Your task to perform on an android device: toggle sleep mode Image 0: 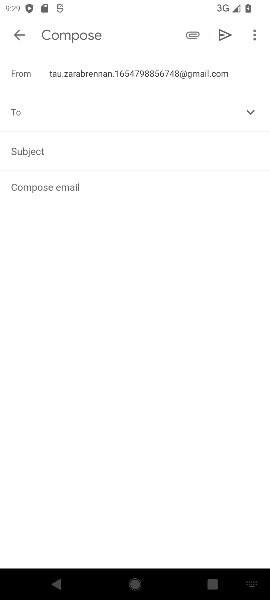
Step 0: press home button
Your task to perform on an android device: toggle sleep mode Image 1: 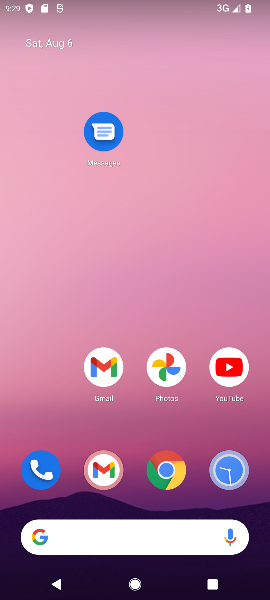
Step 1: drag from (175, 520) to (142, 256)
Your task to perform on an android device: toggle sleep mode Image 2: 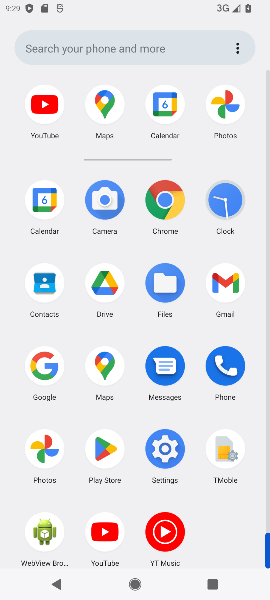
Step 2: click (171, 440)
Your task to perform on an android device: toggle sleep mode Image 3: 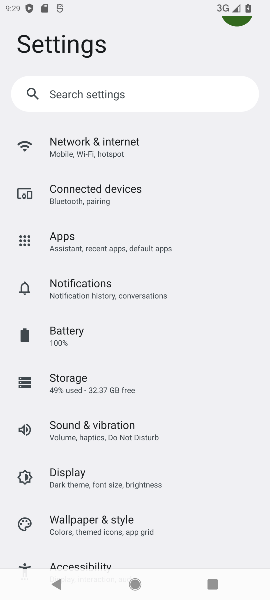
Step 3: click (87, 475)
Your task to perform on an android device: toggle sleep mode Image 4: 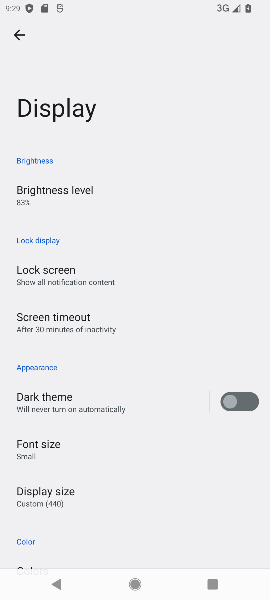
Step 4: task complete